Your task to perform on an android device: change your default location settings in chrome Image 0: 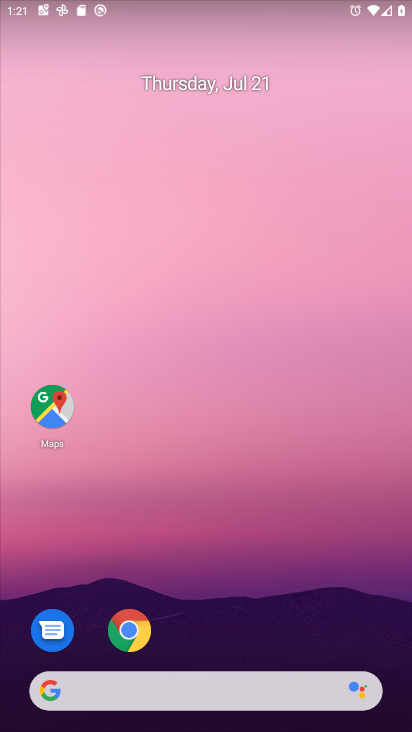
Step 0: drag from (213, 594) to (202, 0)
Your task to perform on an android device: change your default location settings in chrome Image 1: 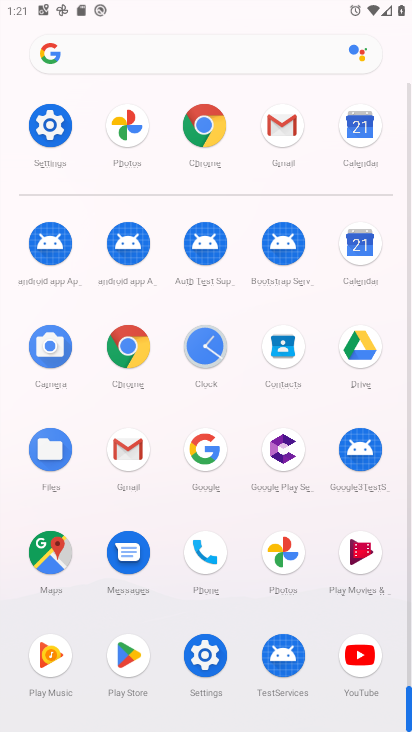
Step 1: click (126, 349)
Your task to perform on an android device: change your default location settings in chrome Image 2: 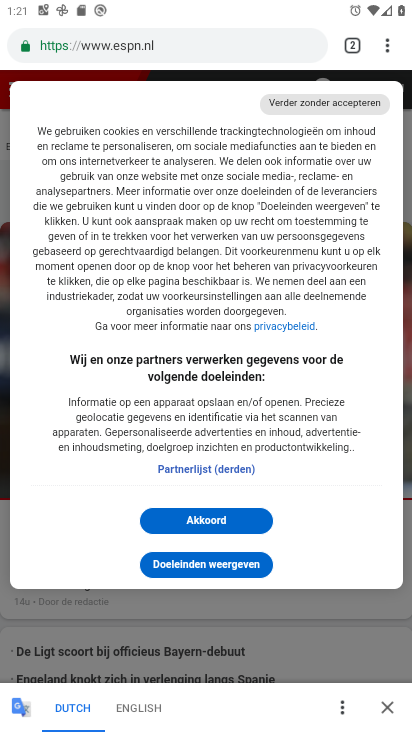
Step 2: click (393, 36)
Your task to perform on an android device: change your default location settings in chrome Image 3: 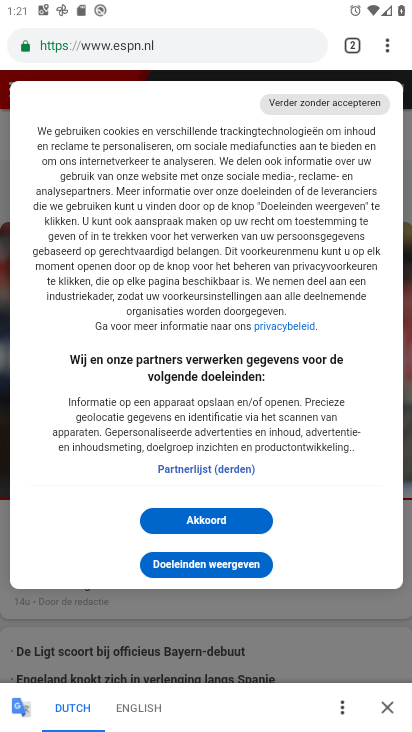
Step 3: click (385, 39)
Your task to perform on an android device: change your default location settings in chrome Image 4: 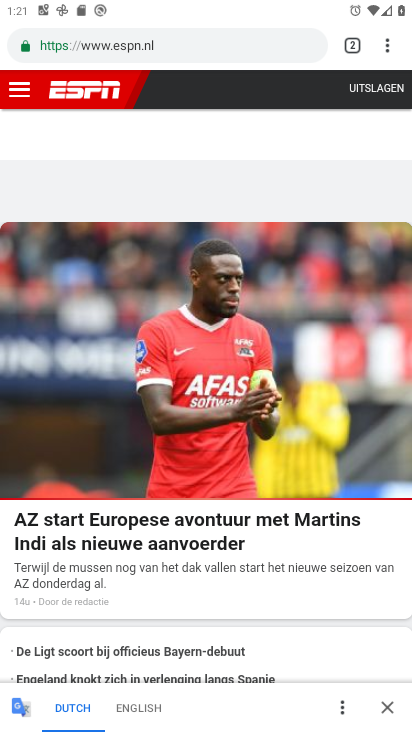
Step 4: drag from (211, 682) to (216, 398)
Your task to perform on an android device: change your default location settings in chrome Image 5: 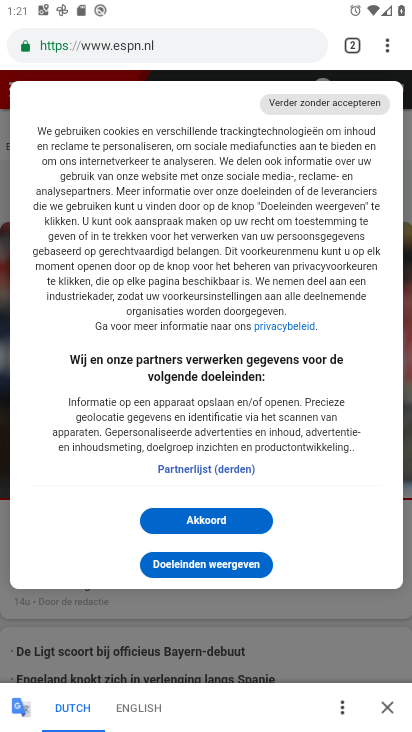
Step 5: drag from (390, 36) to (243, 554)
Your task to perform on an android device: change your default location settings in chrome Image 6: 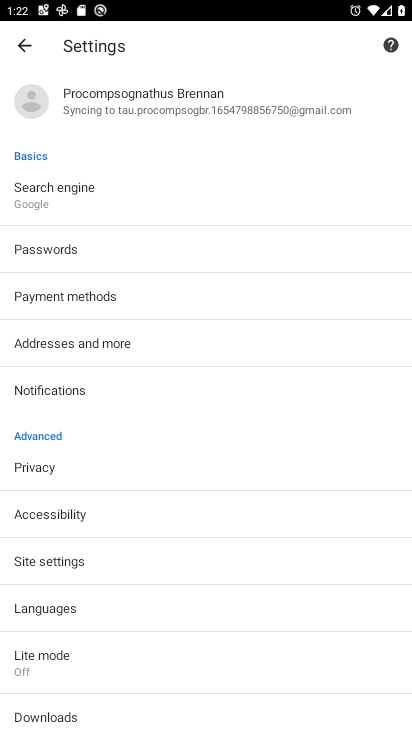
Step 6: click (90, 551)
Your task to perform on an android device: change your default location settings in chrome Image 7: 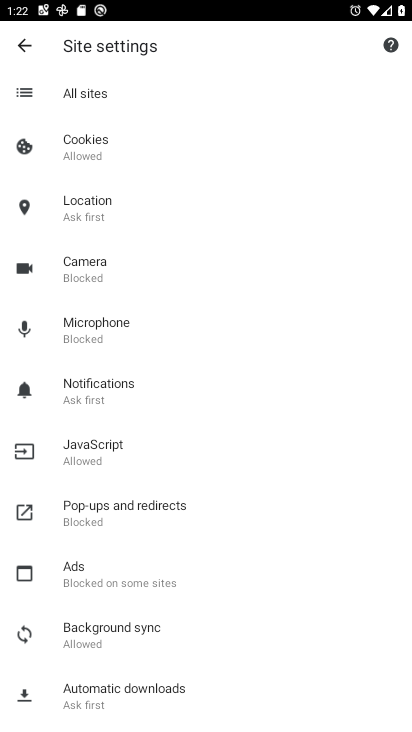
Step 7: click (143, 212)
Your task to perform on an android device: change your default location settings in chrome Image 8: 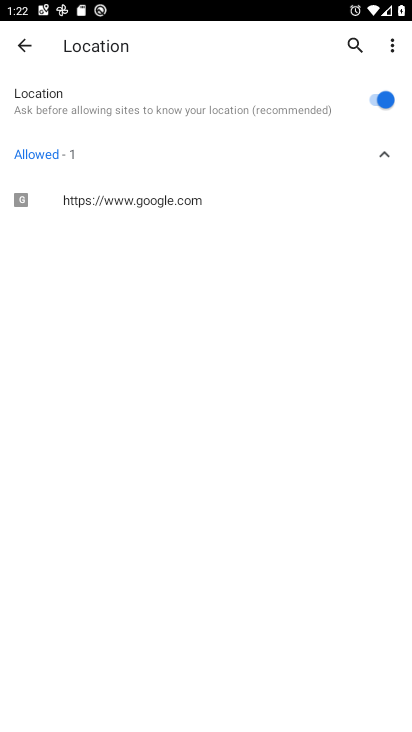
Step 8: click (373, 99)
Your task to perform on an android device: change your default location settings in chrome Image 9: 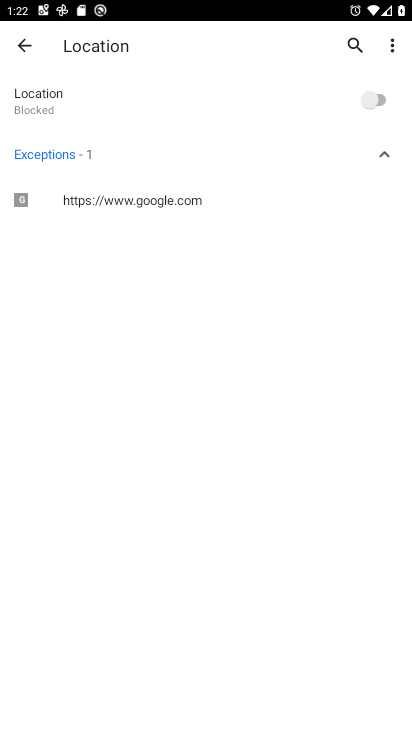
Step 9: task complete